Your task to perform on an android device: turn off wifi Image 0: 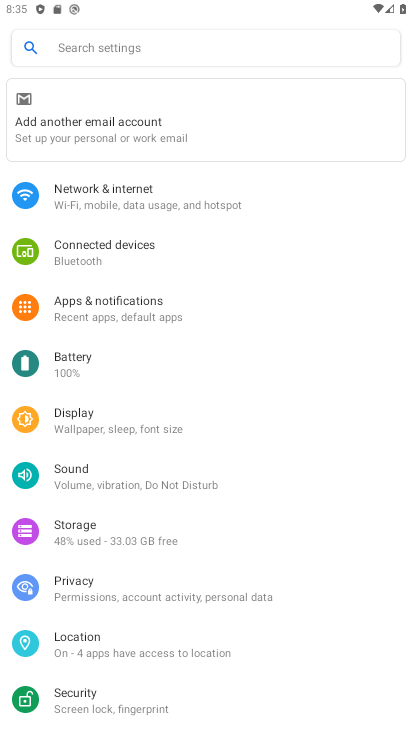
Step 0: click (103, 201)
Your task to perform on an android device: turn off wifi Image 1: 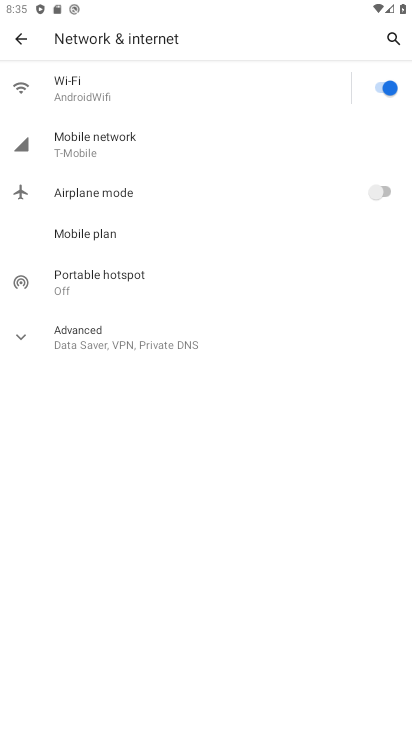
Step 1: click (378, 92)
Your task to perform on an android device: turn off wifi Image 2: 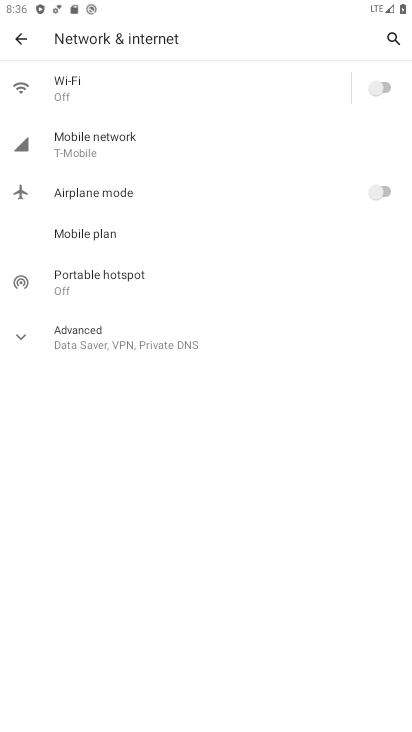
Step 2: task complete